Your task to perform on an android device: Go to calendar. Show me events next week Image 0: 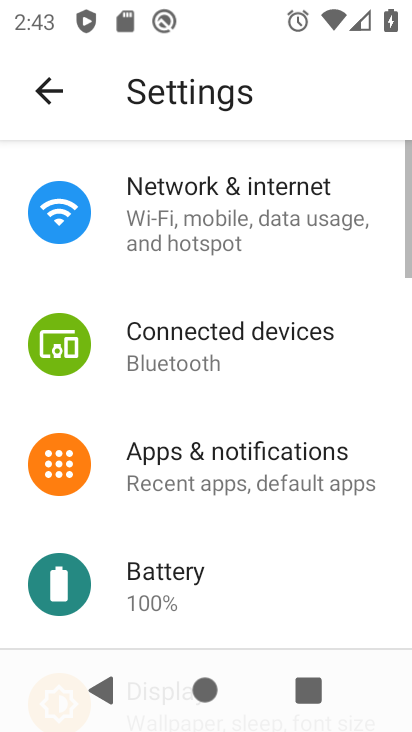
Step 0: press home button
Your task to perform on an android device: Go to calendar. Show me events next week Image 1: 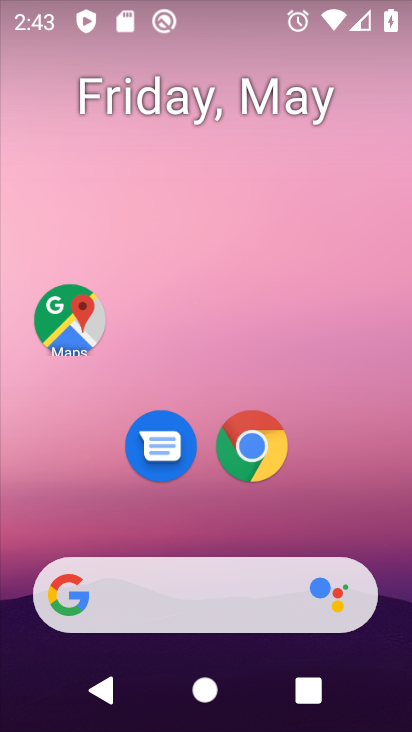
Step 1: drag from (392, 578) to (323, 168)
Your task to perform on an android device: Go to calendar. Show me events next week Image 2: 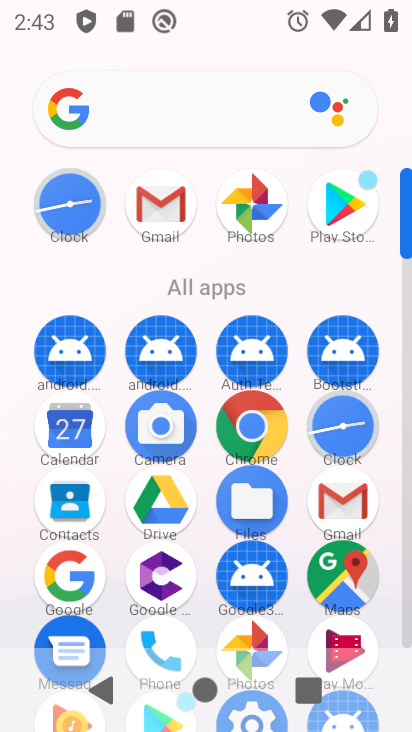
Step 2: click (82, 444)
Your task to perform on an android device: Go to calendar. Show me events next week Image 3: 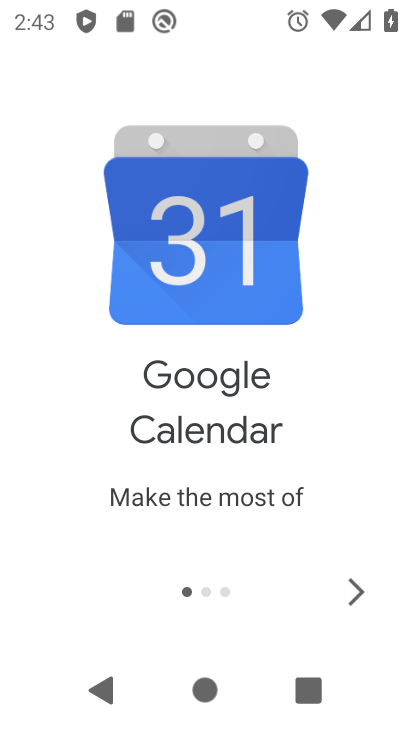
Step 3: click (354, 588)
Your task to perform on an android device: Go to calendar. Show me events next week Image 4: 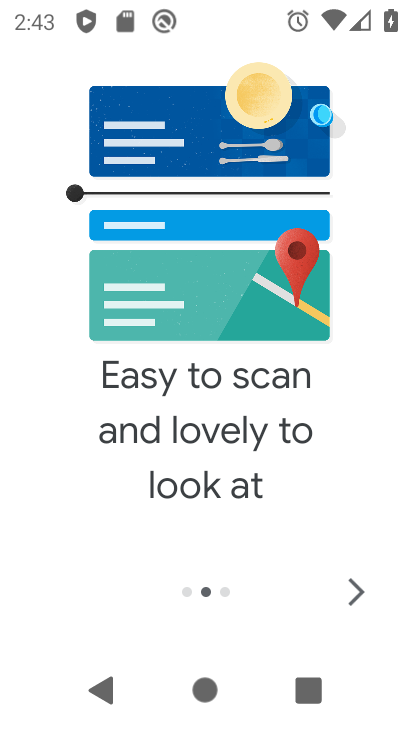
Step 4: click (354, 588)
Your task to perform on an android device: Go to calendar. Show me events next week Image 5: 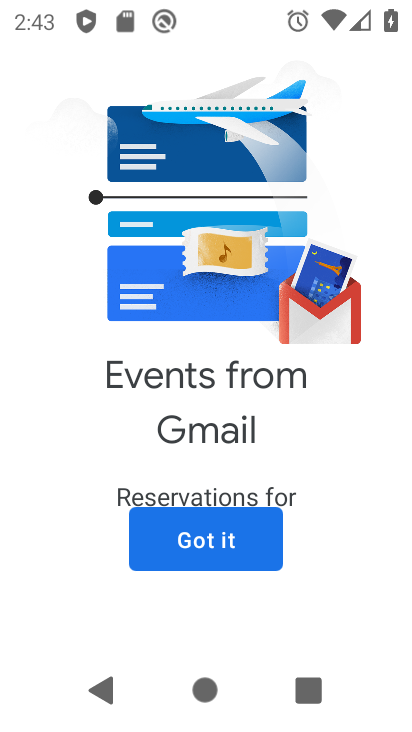
Step 5: click (245, 543)
Your task to perform on an android device: Go to calendar. Show me events next week Image 6: 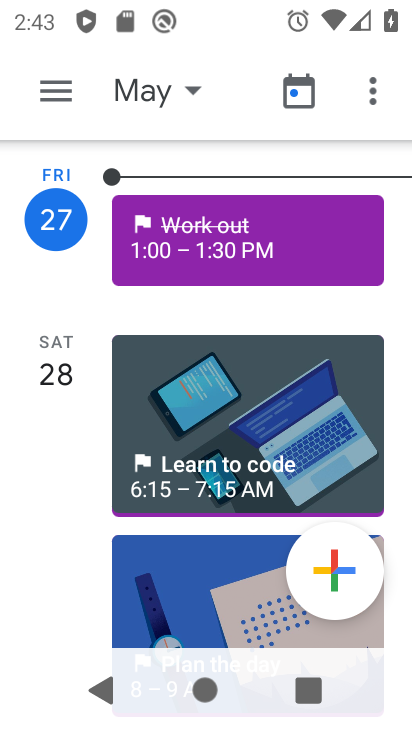
Step 6: click (68, 92)
Your task to perform on an android device: Go to calendar. Show me events next week Image 7: 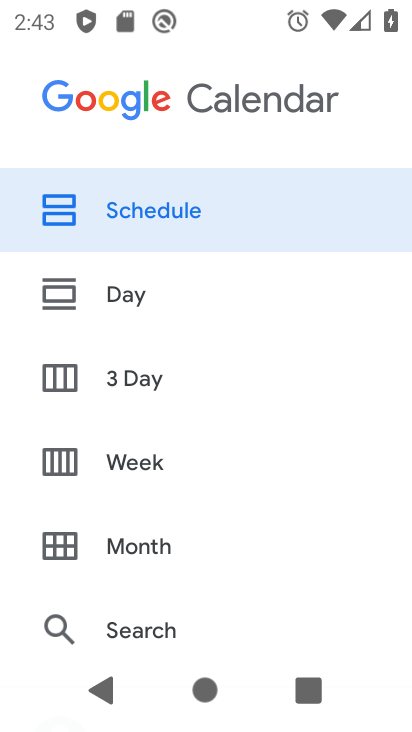
Step 7: drag from (216, 589) to (248, 229)
Your task to perform on an android device: Go to calendar. Show me events next week Image 8: 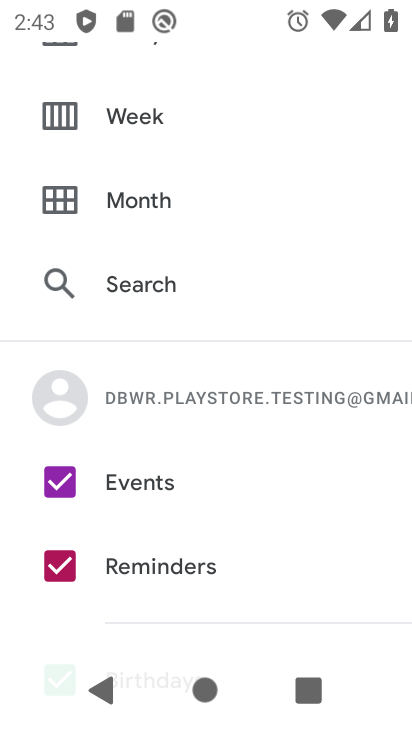
Step 8: drag from (221, 605) to (281, 279)
Your task to perform on an android device: Go to calendar. Show me events next week Image 9: 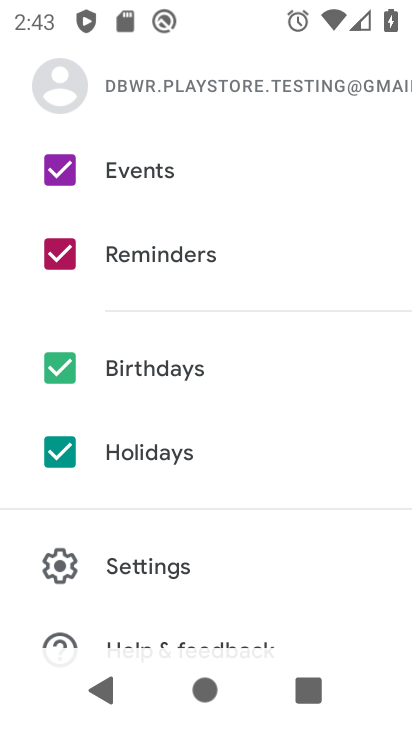
Step 9: click (67, 455)
Your task to perform on an android device: Go to calendar. Show me events next week Image 10: 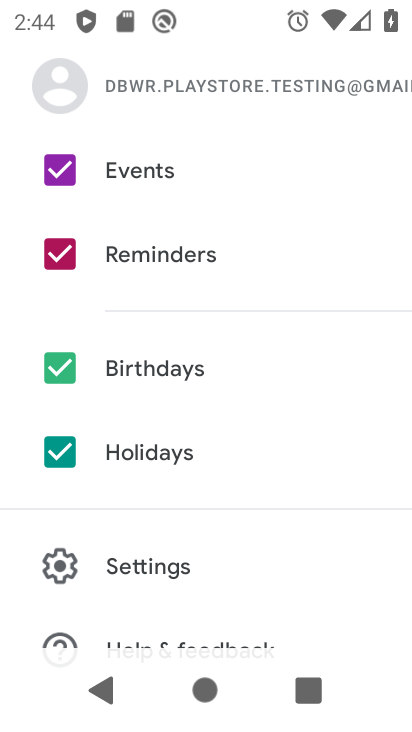
Step 10: click (52, 370)
Your task to perform on an android device: Go to calendar. Show me events next week Image 11: 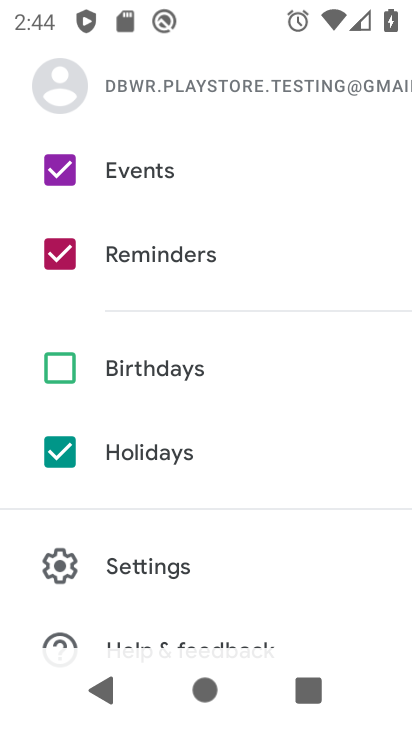
Step 11: click (65, 256)
Your task to perform on an android device: Go to calendar. Show me events next week Image 12: 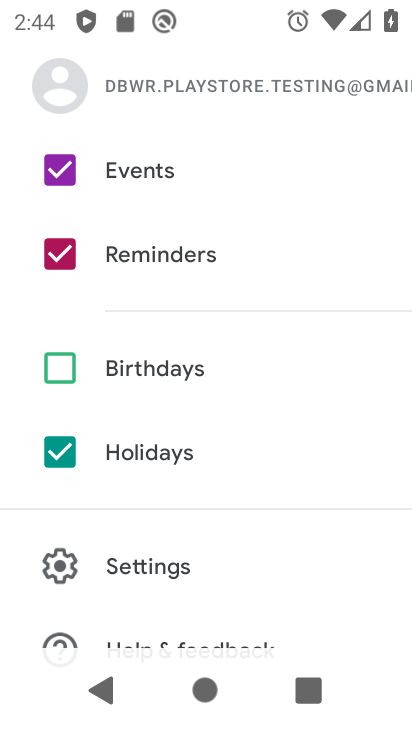
Step 12: click (59, 451)
Your task to perform on an android device: Go to calendar. Show me events next week Image 13: 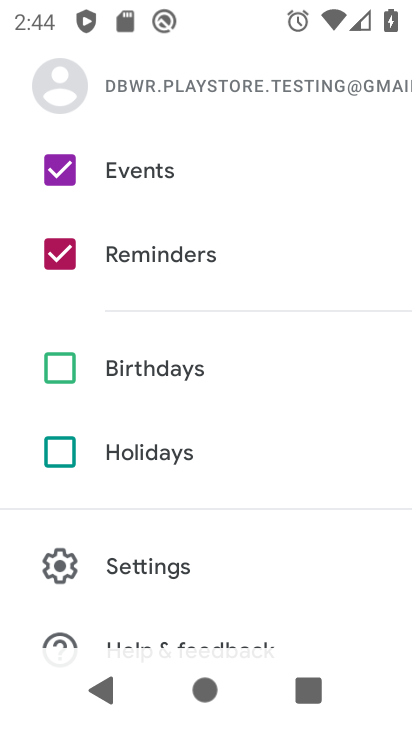
Step 13: click (53, 262)
Your task to perform on an android device: Go to calendar. Show me events next week Image 14: 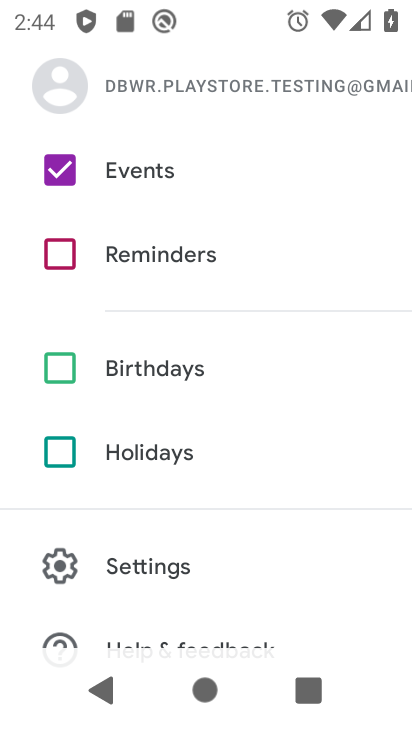
Step 14: drag from (203, 98) to (202, 475)
Your task to perform on an android device: Go to calendar. Show me events next week Image 15: 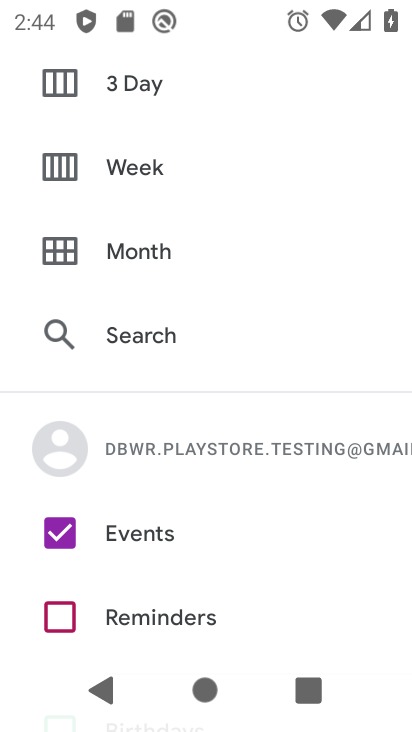
Step 15: click (158, 165)
Your task to perform on an android device: Go to calendar. Show me events next week Image 16: 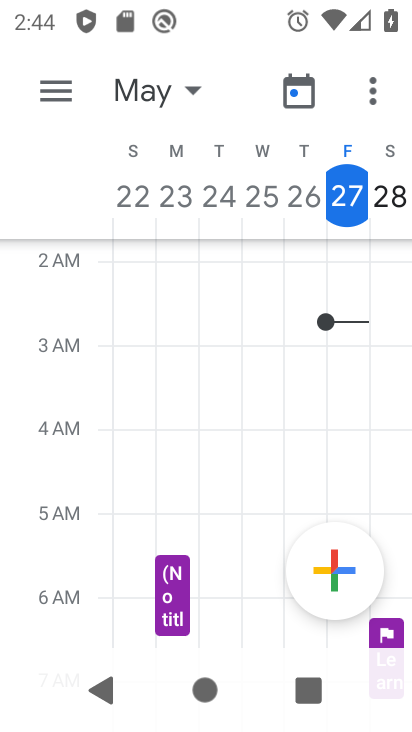
Step 16: task complete